Your task to perform on an android device: Go to Wikipedia Image 0: 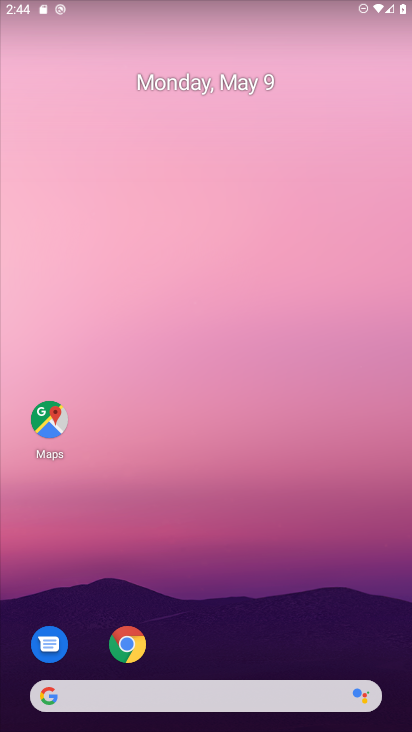
Step 0: drag from (254, 623) to (248, 3)
Your task to perform on an android device: Go to Wikipedia Image 1: 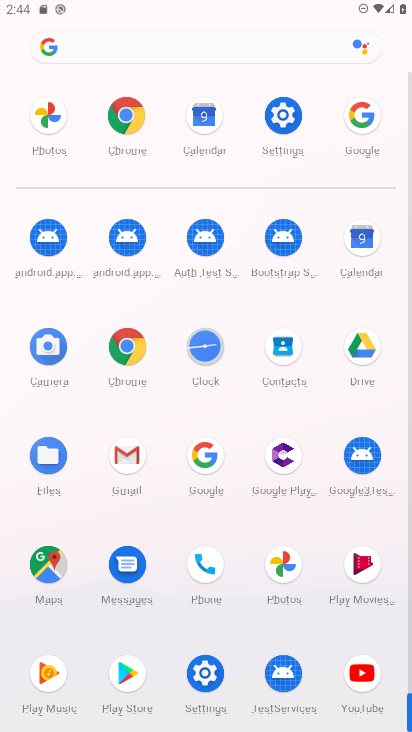
Step 1: click (135, 154)
Your task to perform on an android device: Go to Wikipedia Image 2: 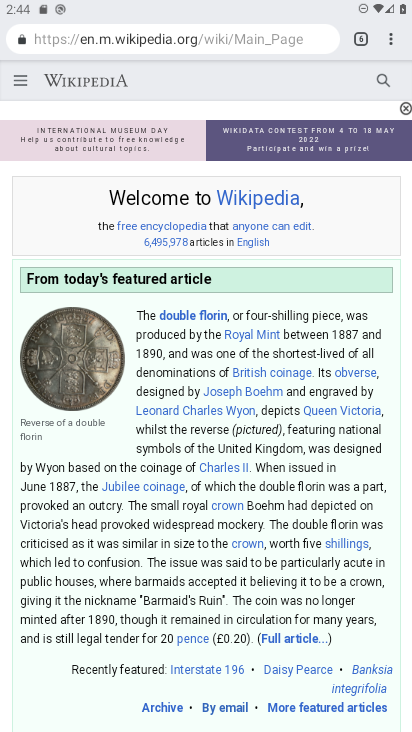
Step 2: task complete